Your task to perform on an android device: Go to Yahoo.com Image 0: 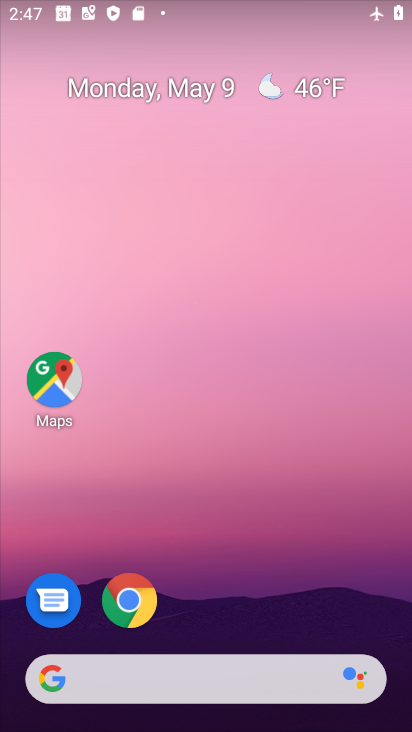
Step 0: click (127, 592)
Your task to perform on an android device: Go to Yahoo.com Image 1: 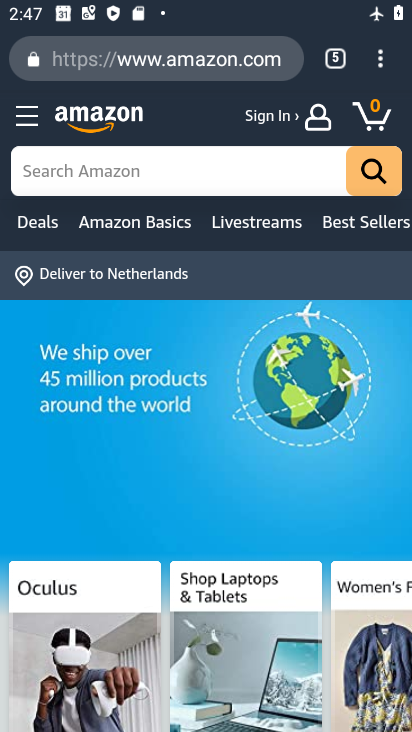
Step 1: click (329, 52)
Your task to perform on an android device: Go to Yahoo.com Image 2: 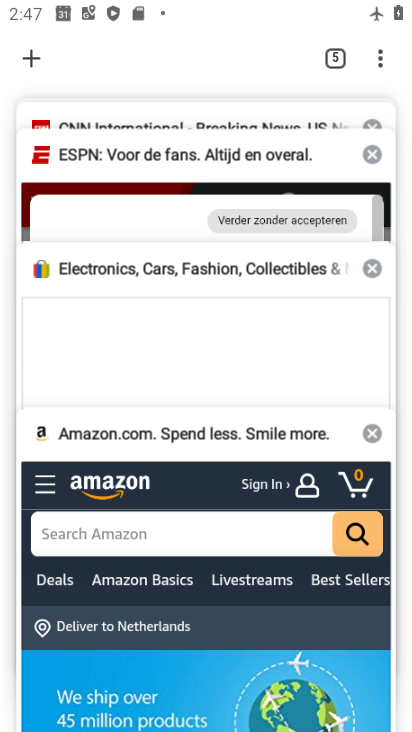
Step 2: click (40, 56)
Your task to perform on an android device: Go to Yahoo.com Image 3: 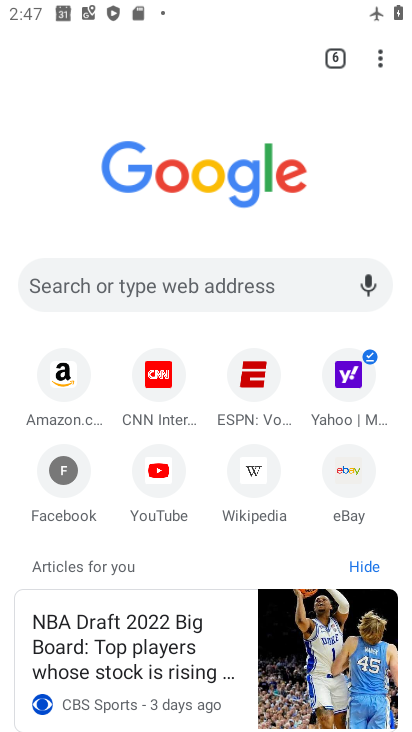
Step 3: click (353, 390)
Your task to perform on an android device: Go to Yahoo.com Image 4: 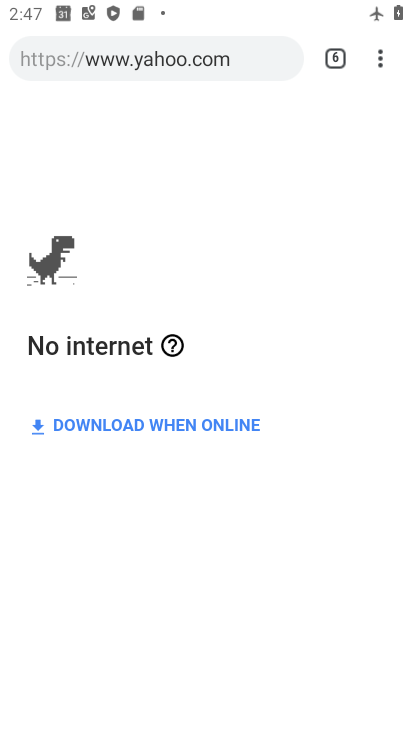
Step 4: drag from (276, 17) to (260, 620)
Your task to perform on an android device: Go to Yahoo.com Image 5: 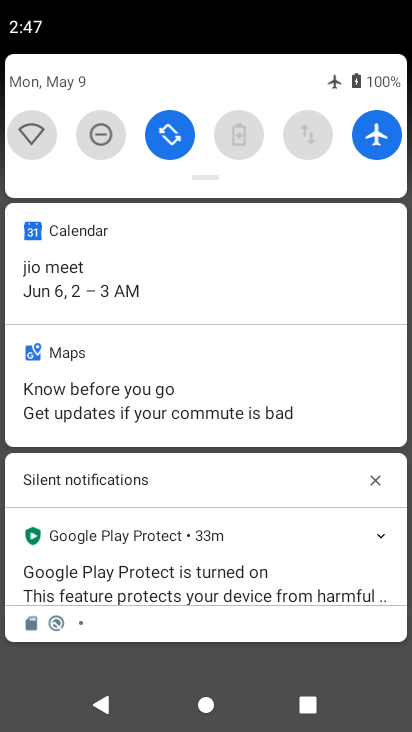
Step 5: click (379, 114)
Your task to perform on an android device: Go to Yahoo.com Image 6: 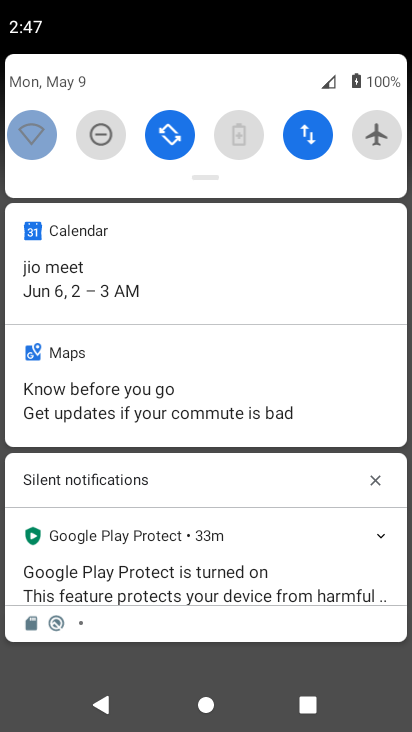
Step 6: click (159, 666)
Your task to perform on an android device: Go to Yahoo.com Image 7: 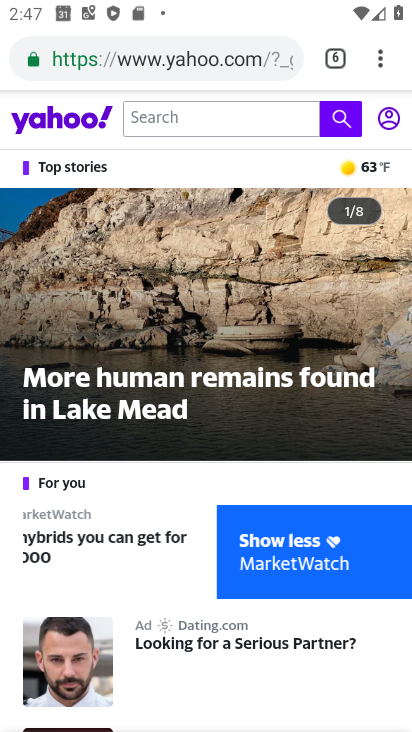
Step 7: task complete